Your task to perform on an android device: Add asus rog to the cart on walmart Image 0: 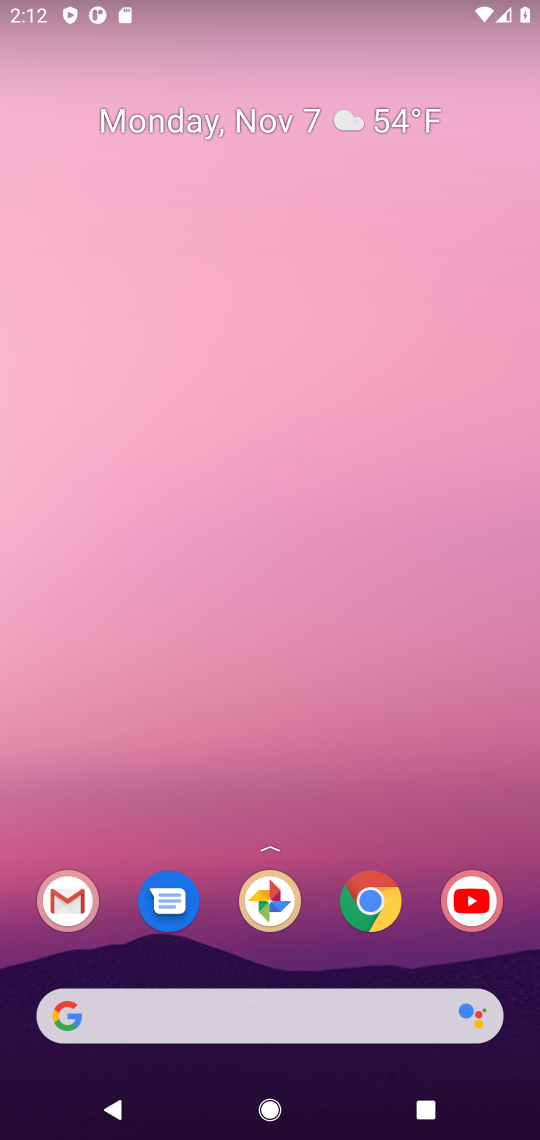
Step 0: click (369, 900)
Your task to perform on an android device: Add asus rog to the cart on walmart Image 1: 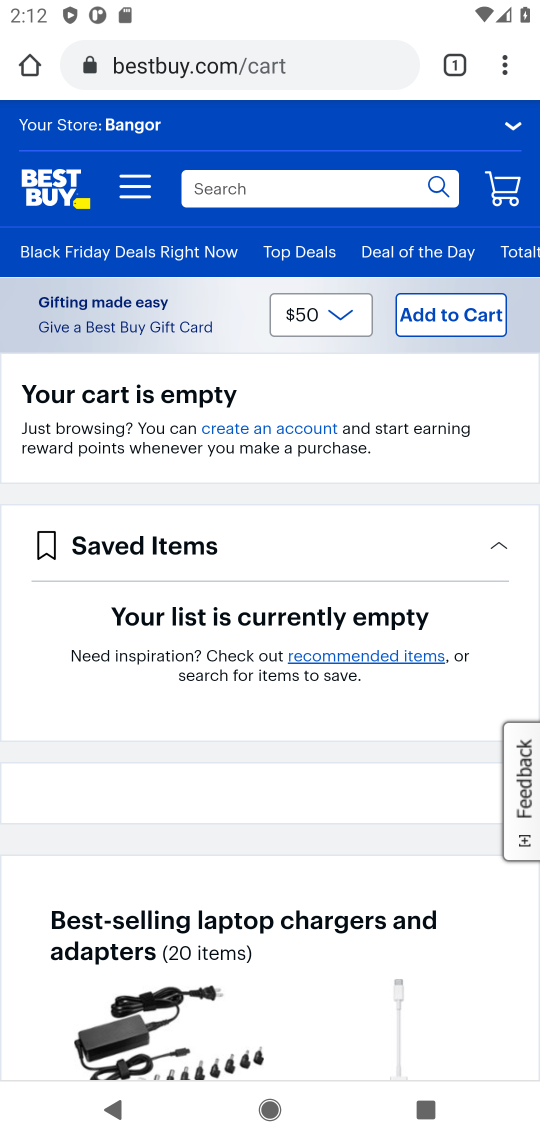
Step 1: click (224, 69)
Your task to perform on an android device: Add asus rog to the cart on walmart Image 2: 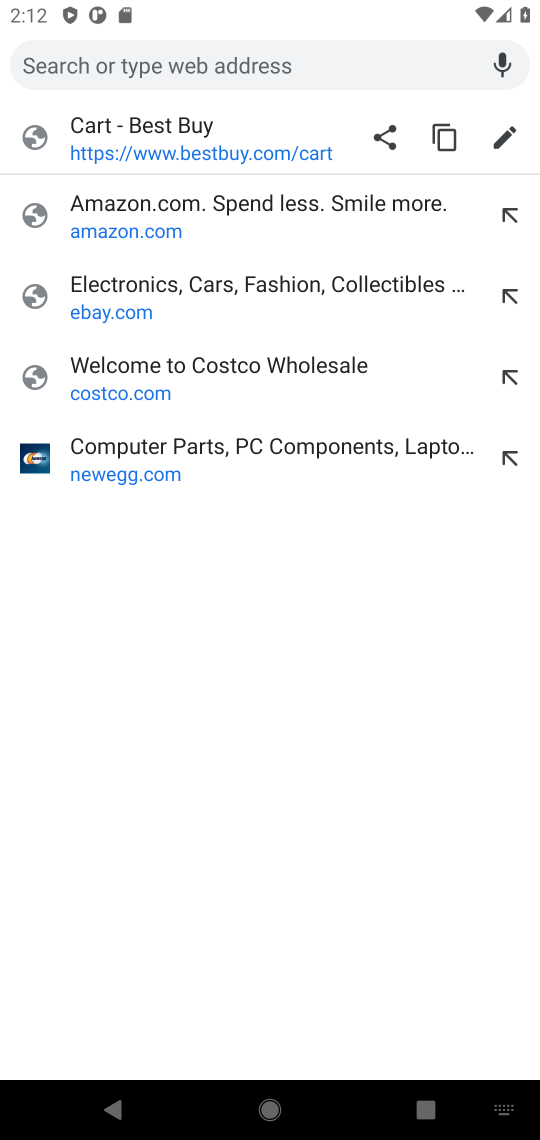
Step 2: type "walamrt.com"
Your task to perform on an android device: Add asus rog to the cart on walmart Image 3: 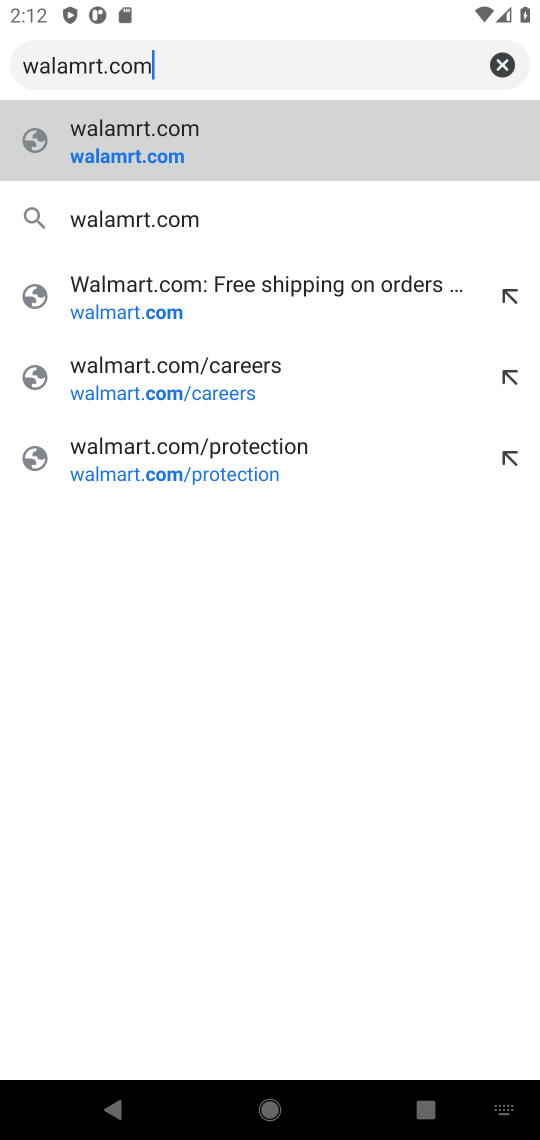
Step 3: click (162, 160)
Your task to perform on an android device: Add asus rog to the cart on walmart Image 4: 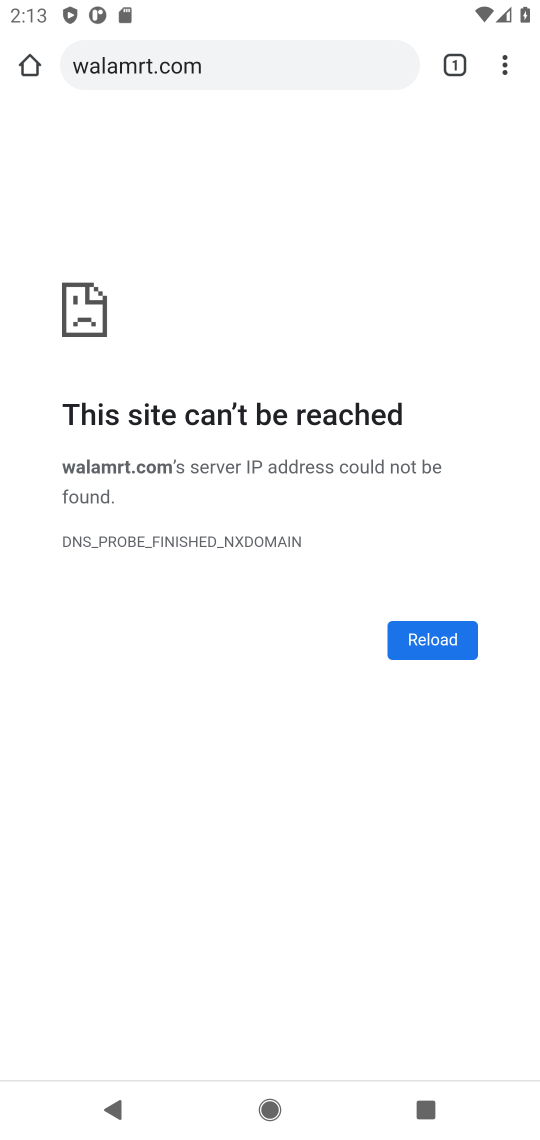
Step 4: click (240, 60)
Your task to perform on an android device: Add asus rog to the cart on walmart Image 5: 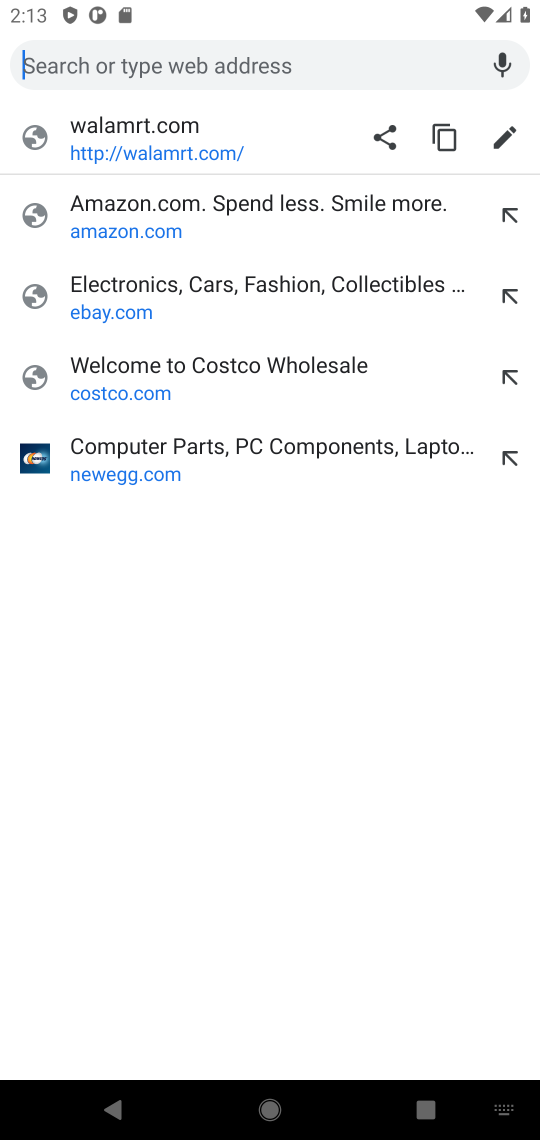
Step 5: type "walmart.com"
Your task to perform on an android device: Add asus rog to the cart on walmart Image 6: 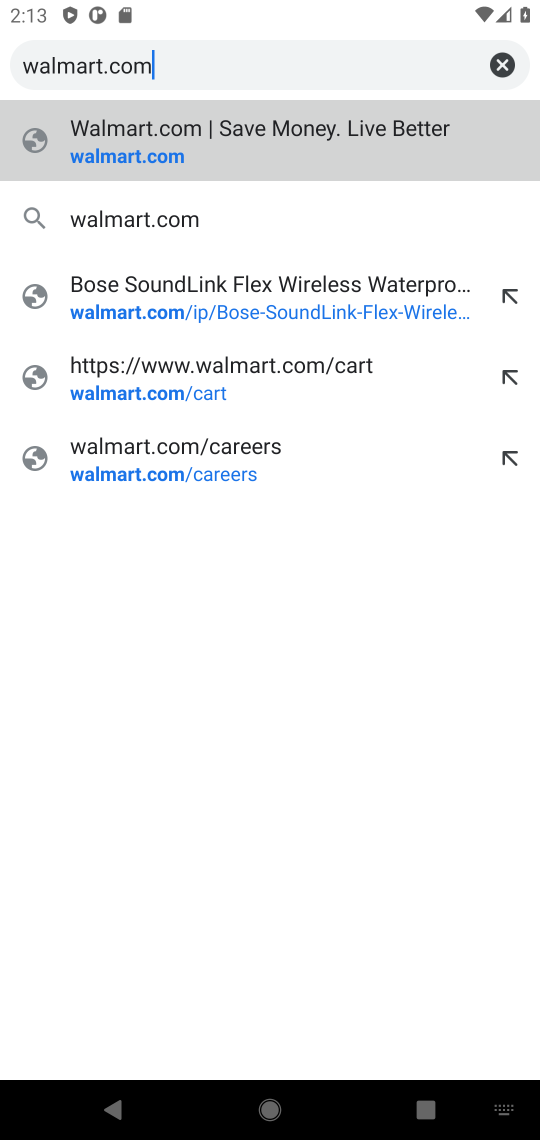
Step 6: click (132, 155)
Your task to perform on an android device: Add asus rog to the cart on walmart Image 7: 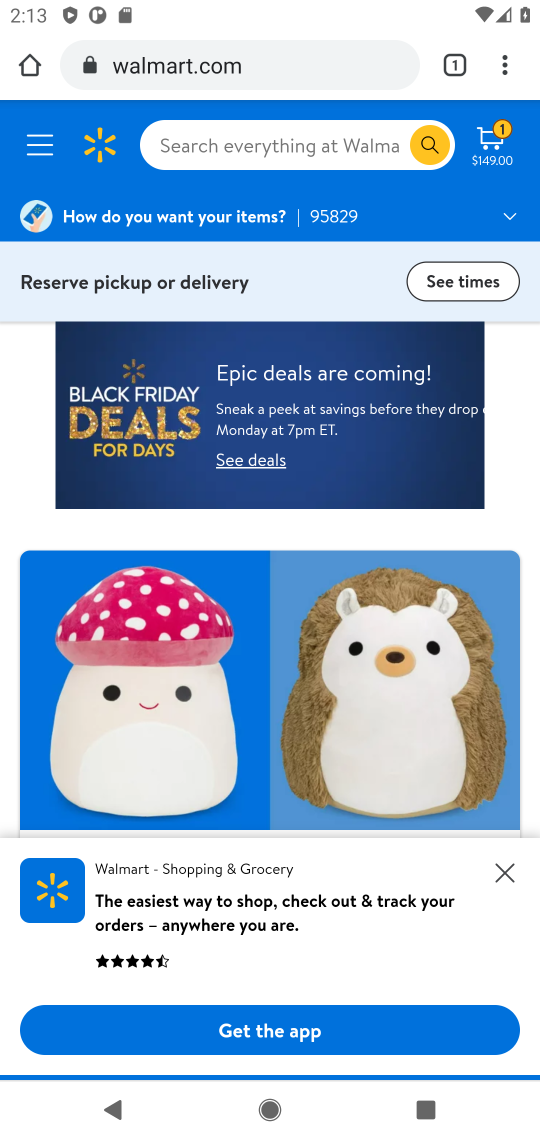
Step 7: click (255, 147)
Your task to perform on an android device: Add asus rog to the cart on walmart Image 8: 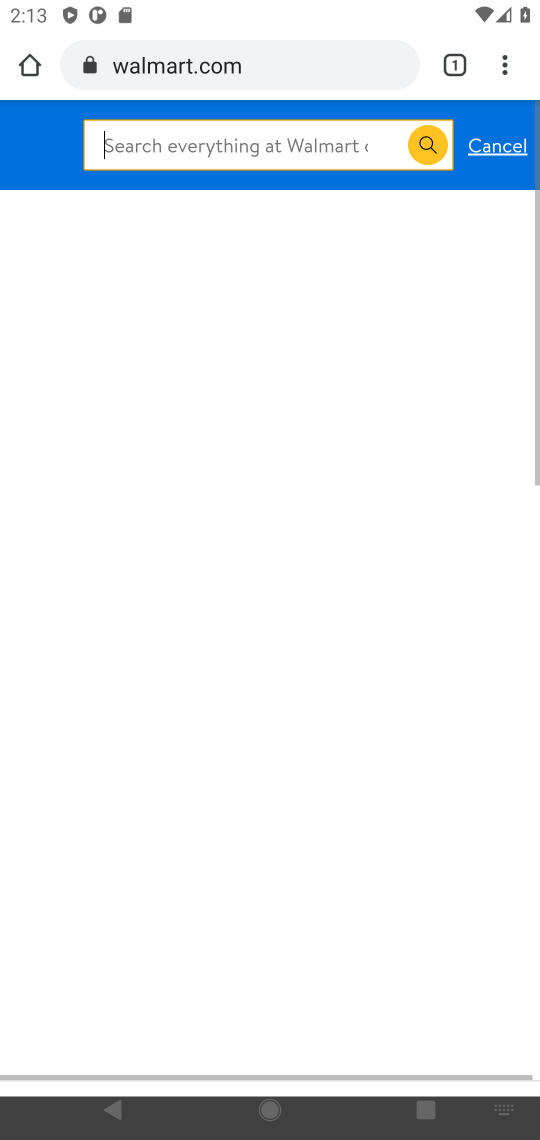
Step 8: click (255, 147)
Your task to perform on an android device: Add asus rog to the cart on walmart Image 9: 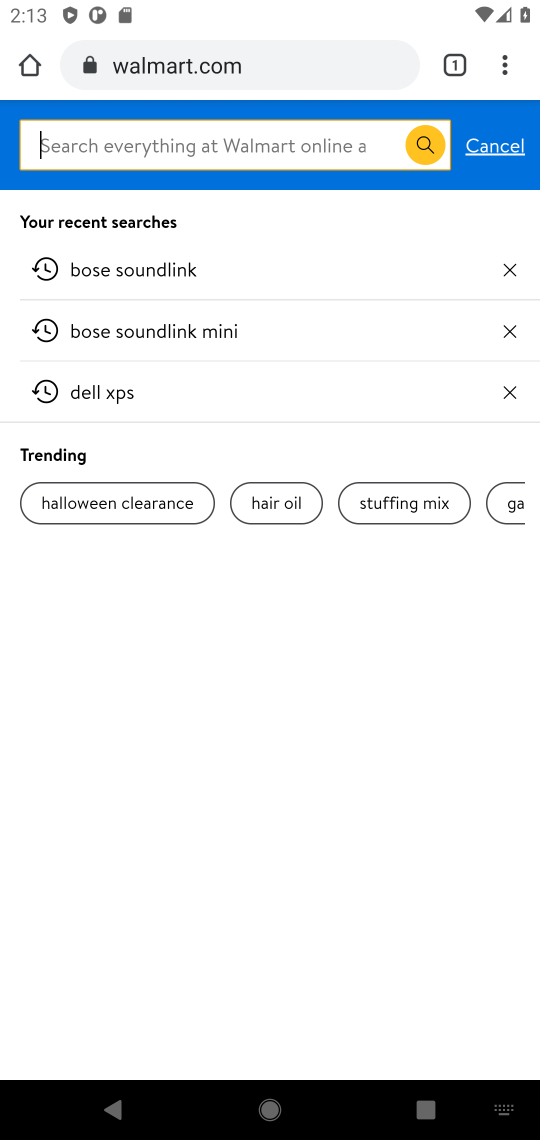
Step 9: type "asus rog"
Your task to perform on an android device: Add asus rog to the cart on walmart Image 10: 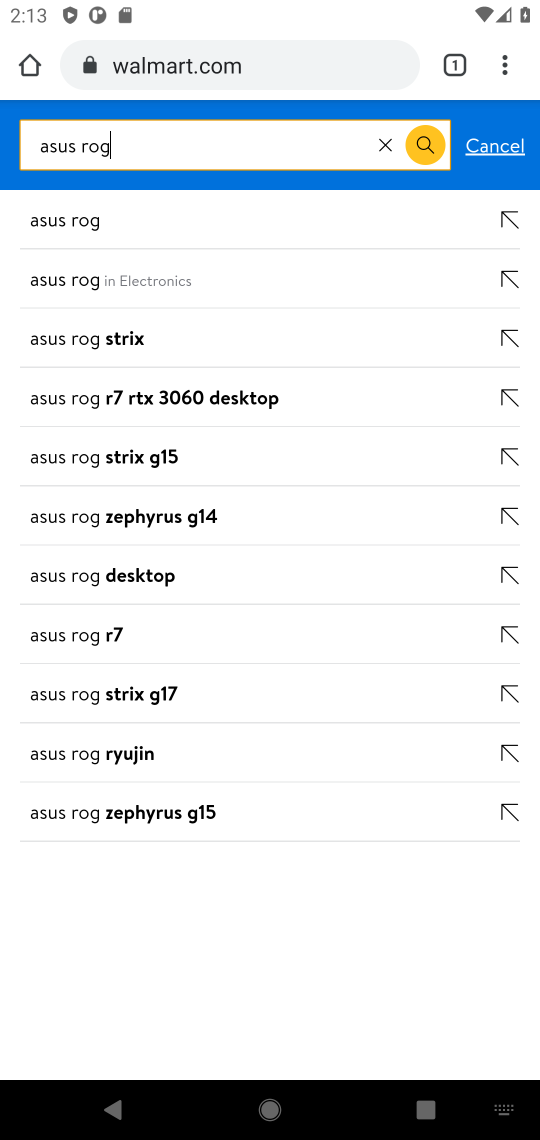
Step 10: click (67, 228)
Your task to perform on an android device: Add asus rog to the cart on walmart Image 11: 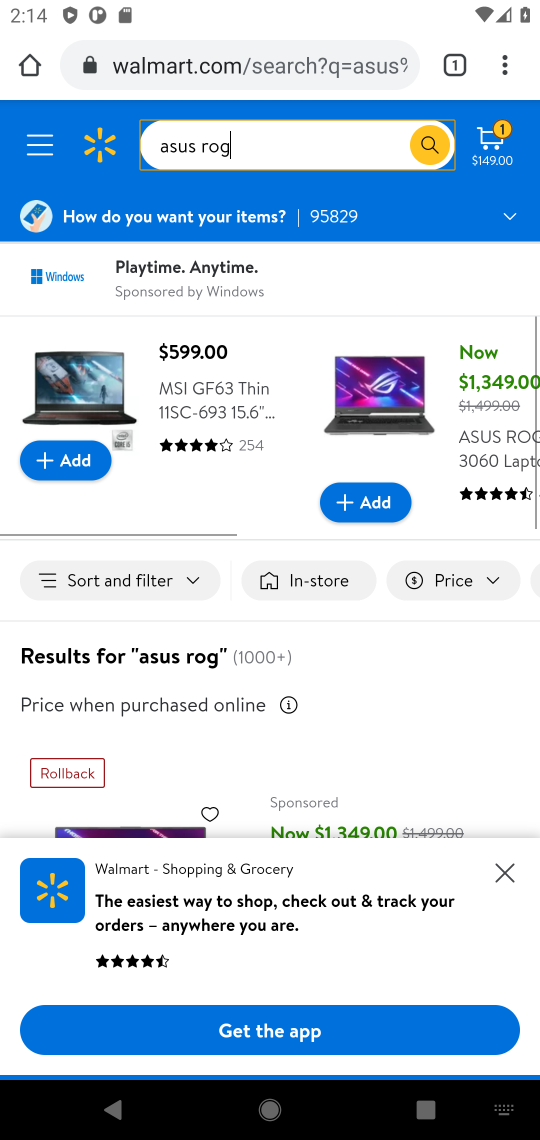
Step 11: drag from (296, 744) to (309, 301)
Your task to perform on an android device: Add asus rog to the cart on walmart Image 12: 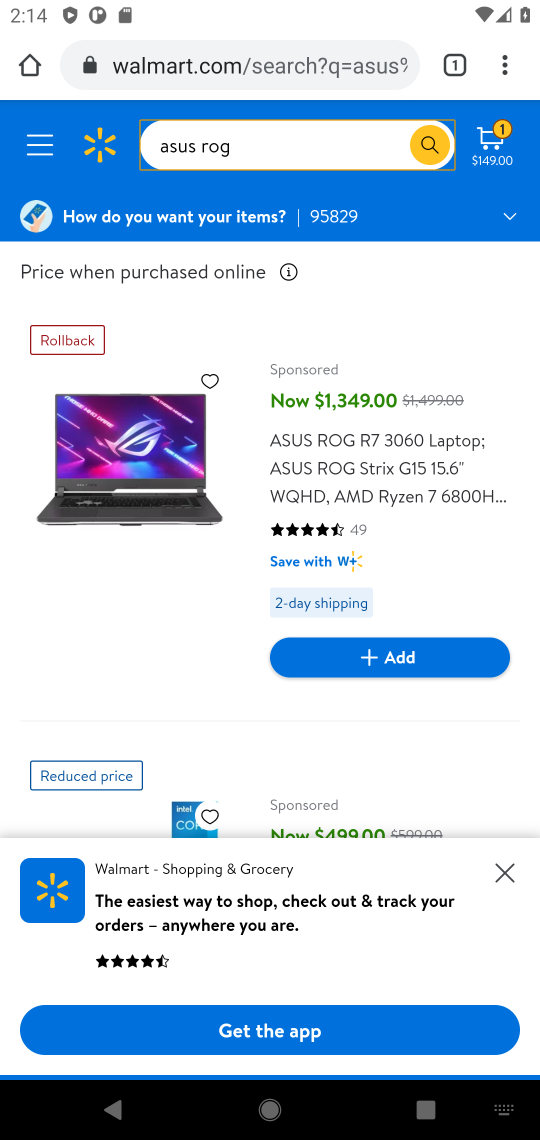
Step 12: click (364, 660)
Your task to perform on an android device: Add asus rog to the cart on walmart Image 13: 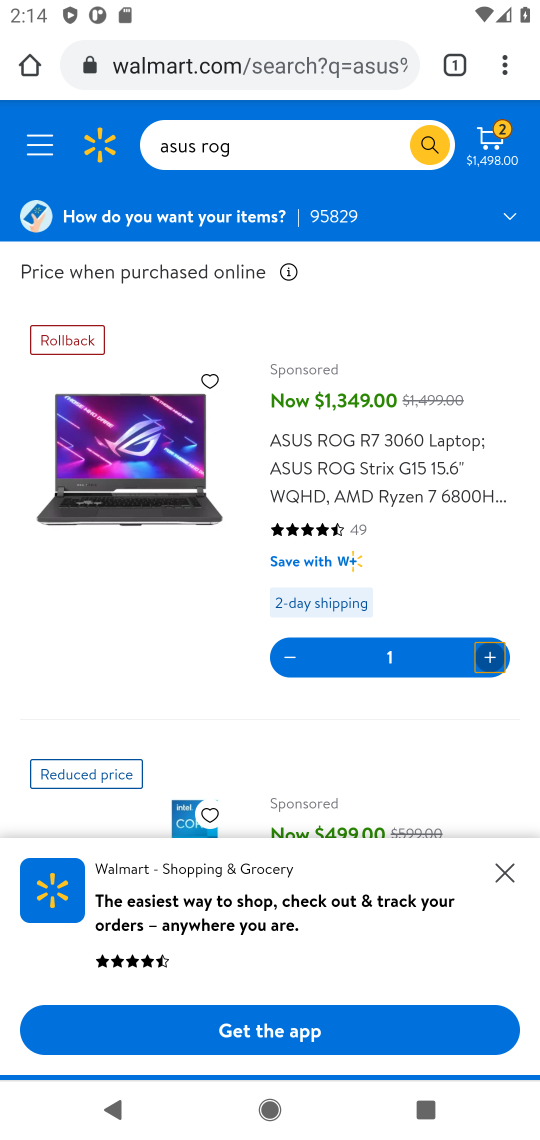
Step 13: task complete